Your task to perform on an android device: all mails in gmail Image 0: 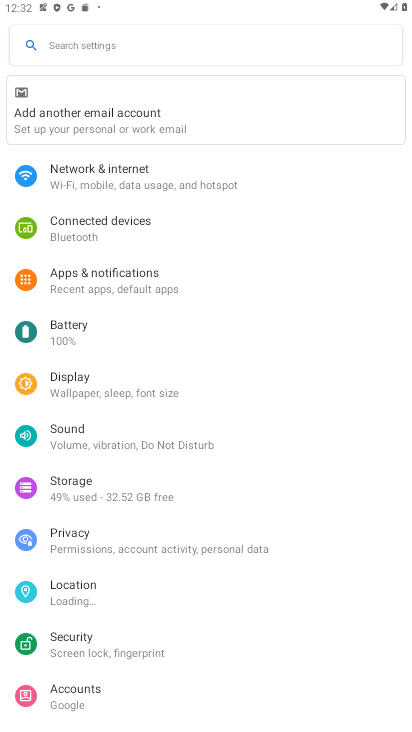
Step 0: press home button
Your task to perform on an android device: all mails in gmail Image 1: 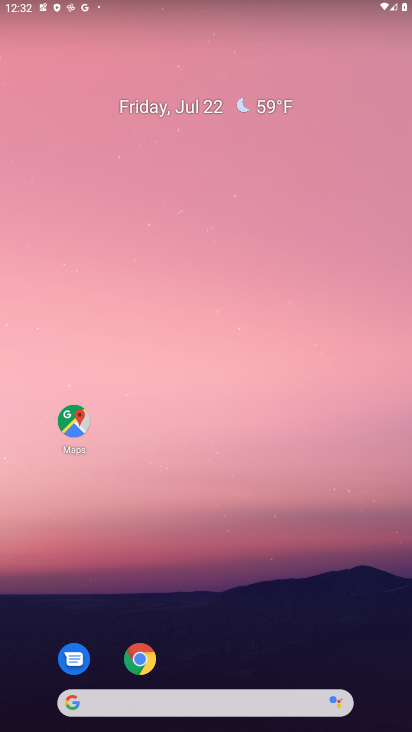
Step 1: drag from (298, 625) to (372, 52)
Your task to perform on an android device: all mails in gmail Image 2: 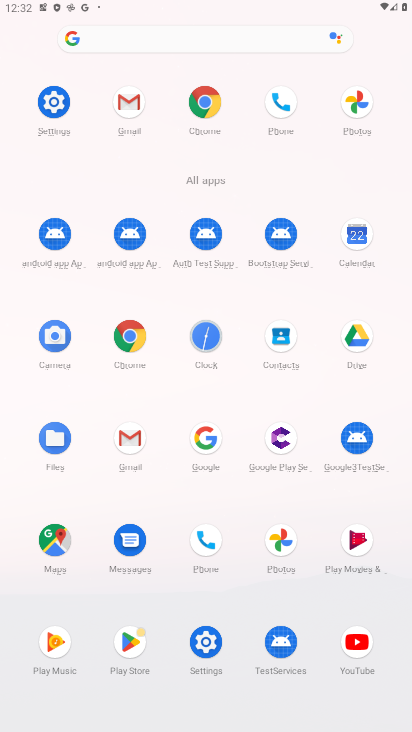
Step 2: click (136, 98)
Your task to perform on an android device: all mails in gmail Image 3: 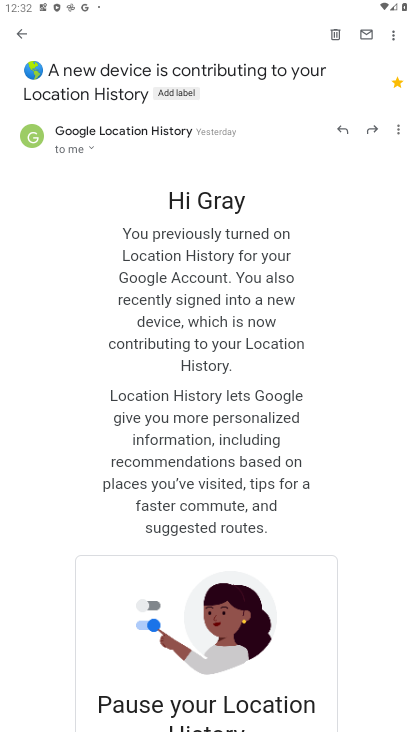
Step 3: task complete